Your task to perform on an android device: Open calendar and show me the second week of next month Image 0: 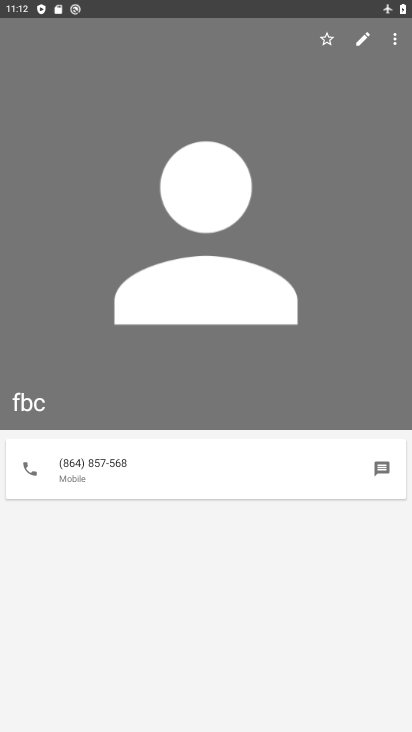
Step 0: press home button
Your task to perform on an android device: Open calendar and show me the second week of next month Image 1: 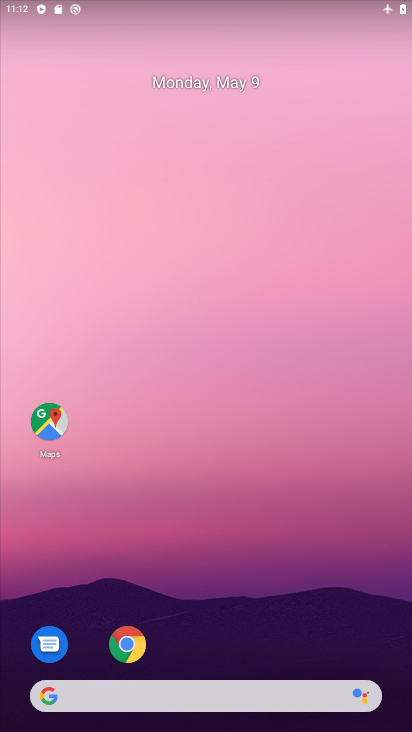
Step 1: drag from (238, 630) to (252, 186)
Your task to perform on an android device: Open calendar and show me the second week of next month Image 2: 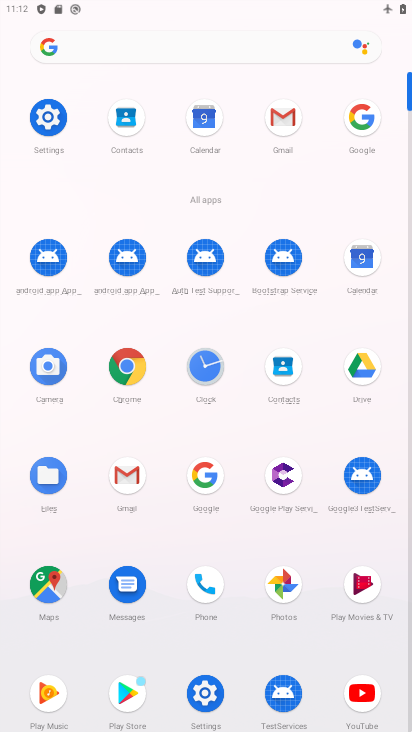
Step 2: click (194, 121)
Your task to perform on an android device: Open calendar and show me the second week of next month Image 3: 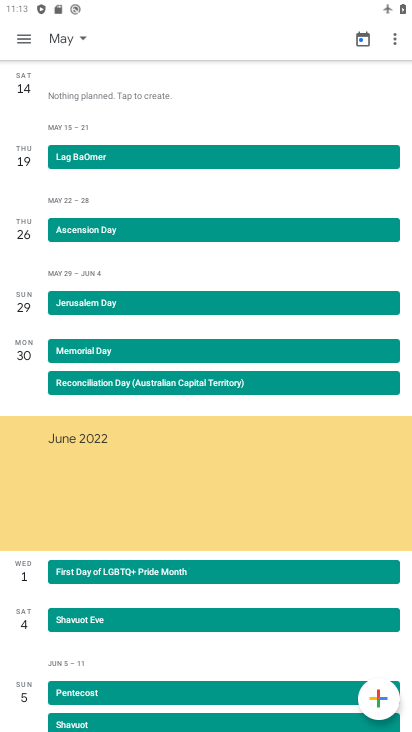
Step 3: click (75, 43)
Your task to perform on an android device: Open calendar and show me the second week of next month Image 4: 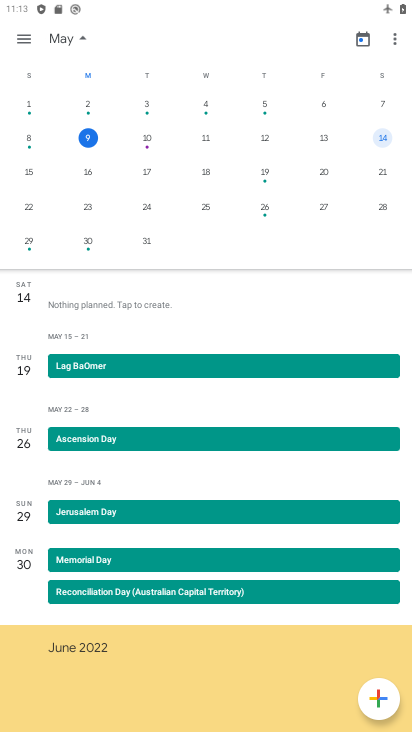
Step 4: drag from (342, 144) to (25, 142)
Your task to perform on an android device: Open calendar and show me the second week of next month Image 5: 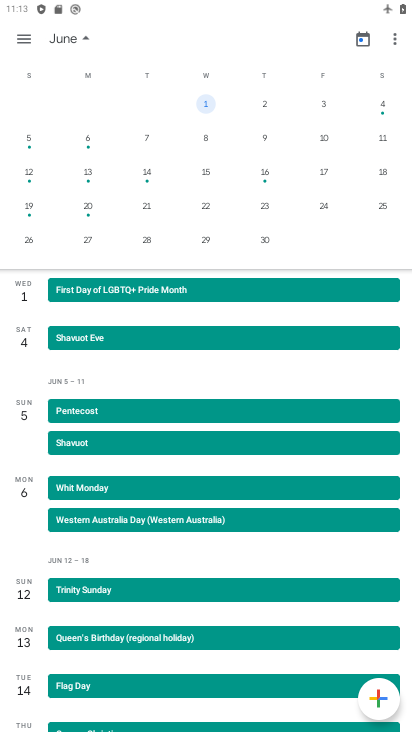
Step 5: click (91, 129)
Your task to perform on an android device: Open calendar and show me the second week of next month Image 6: 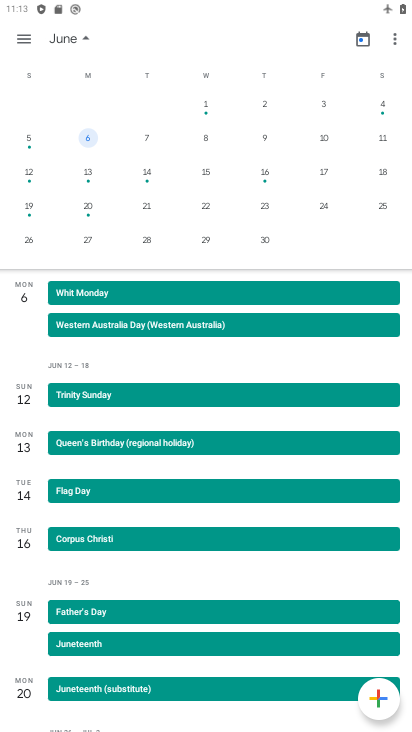
Step 6: task complete